Your task to perform on an android device: open app "Adobe Acrobat Reader" (install if not already installed) Image 0: 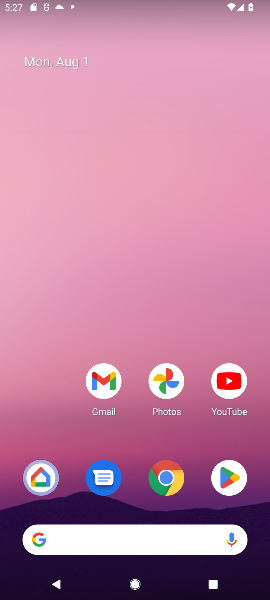
Step 0: press home button
Your task to perform on an android device: open app "Adobe Acrobat Reader" (install if not already installed) Image 1: 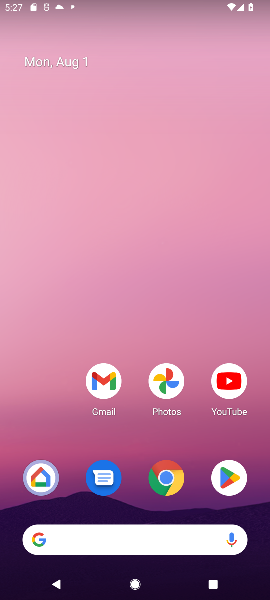
Step 1: click (228, 479)
Your task to perform on an android device: open app "Adobe Acrobat Reader" (install if not already installed) Image 2: 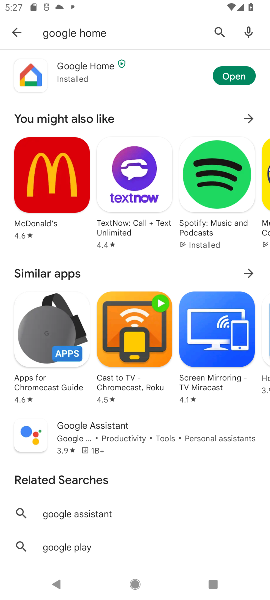
Step 2: click (209, 35)
Your task to perform on an android device: open app "Adobe Acrobat Reader" (install if not already installed) Image 3: 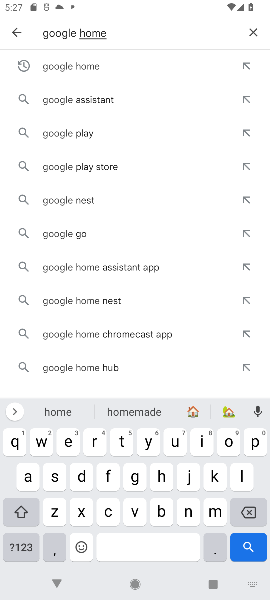
Step 3: click (250, 36)
Your task to perform on an android device: open app "Adobe Acrobat Reader" (install if not already installed) Image 4: 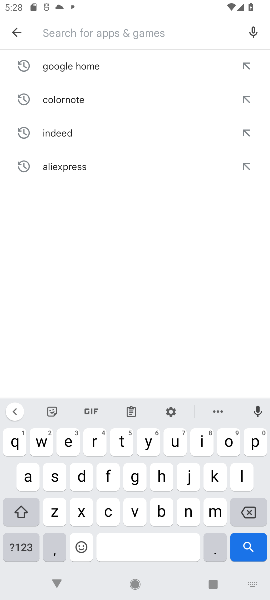
Step 4: click (28, 481)
Your task to perform on an android device: open app "Adobe Acrobat Reader" (install if not already installed) Image 5: 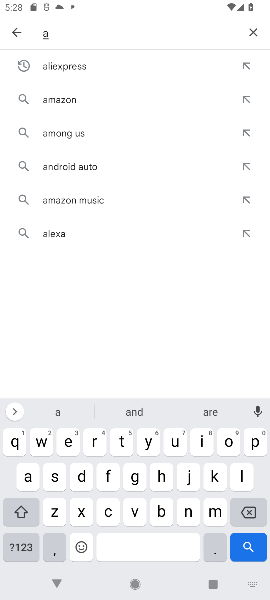
Step 5: click (84, 476)
Your task to perform on an android device: open app "Adobe Acrobat Reader" (install if not already installed) Image 6: 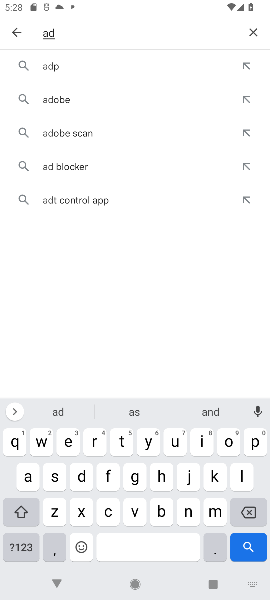
Step 6: click (91, 93)
Your task to perform on an android device: open app "Adobe Acrobat Reader" (install if not already installed) Image 7: 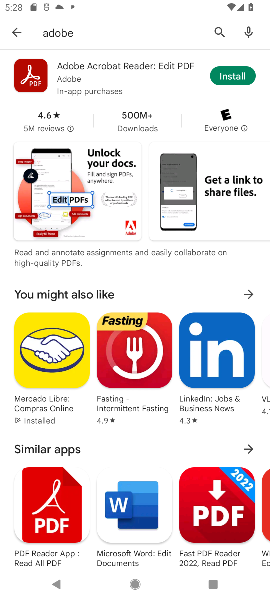
Step 7: click (228, 73)
Your task to perform on an android device: open app "Adobe Acrobat Reader" (install if not already installed) Image 8: 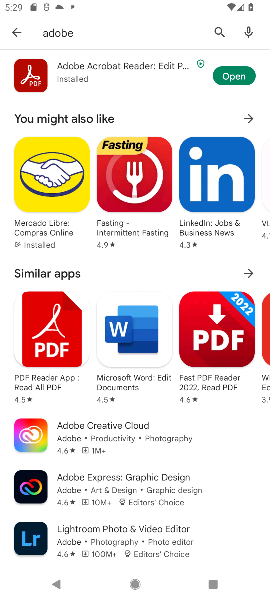
Step 8: click (237, 64)
Your task to perform on an android device: open app "Adobe Acrobat Reader" (install if not already installed) Image 9: 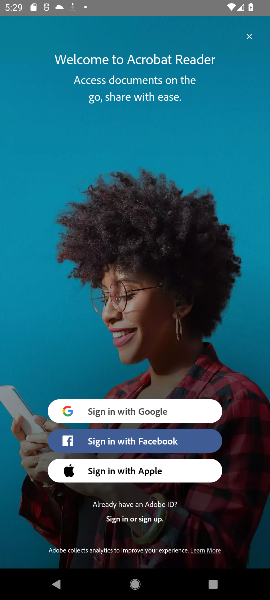
Step 9: task complete